Your task to perform on an android device: turn off location history Image 0: 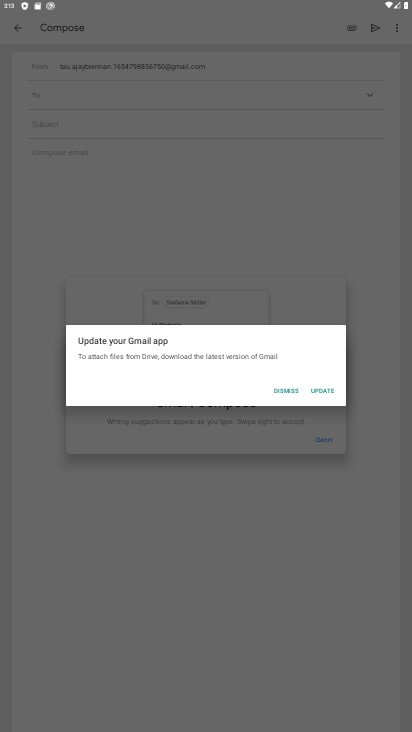
Step 0: press home button
Your task to perform on an android device: turn off location history Image 1: 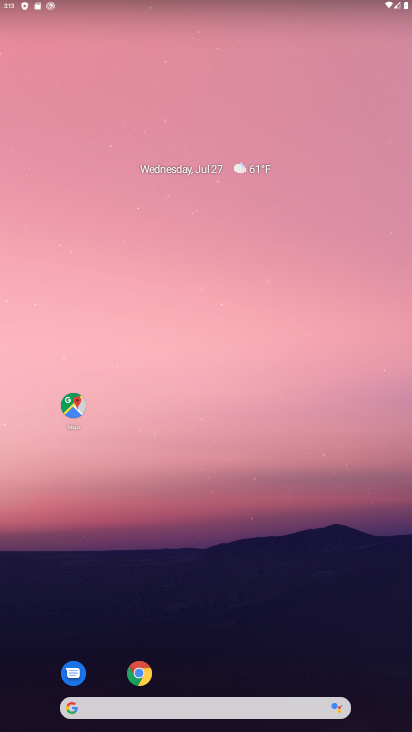
Step 1: drag from (355, 632) to (293, 200)
Your task to perform on an android device: turn off location history Image 2: 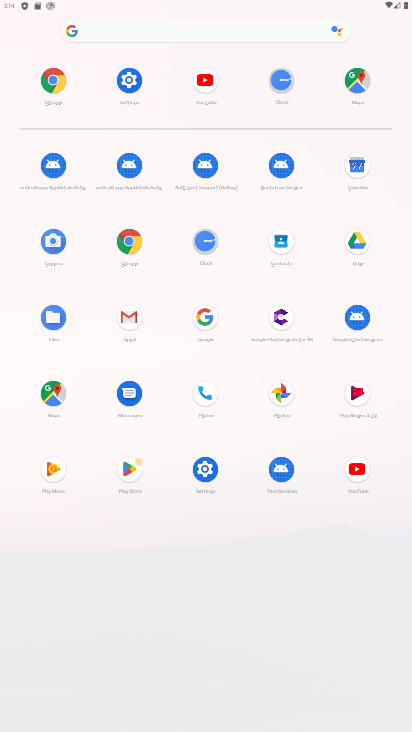
Step 2: click (199, 469)
Your task to perform on an android device: turn off location history Image 3: 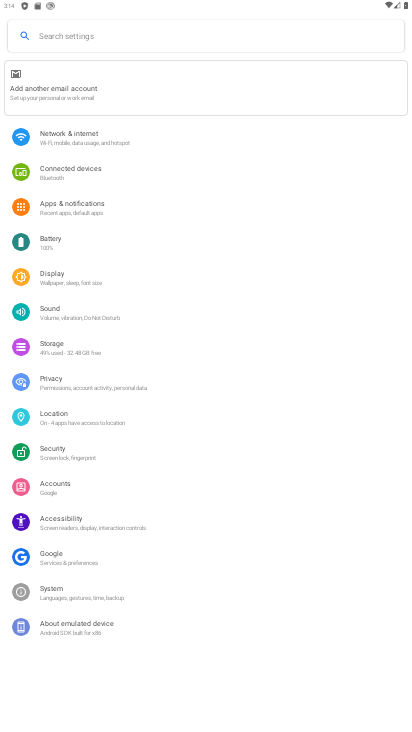
Step 3: click (70, 421)
Your task to perform on an android device: turn off location history Image 4: 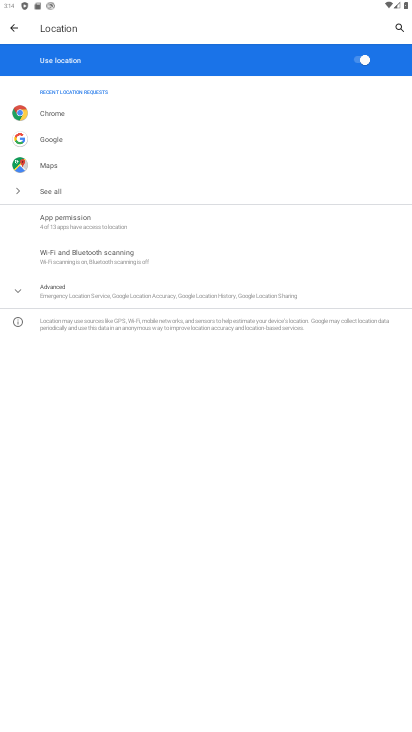
Step 4: click (55, 294)
Your task to perform on an android device: turn off location history Image 5: 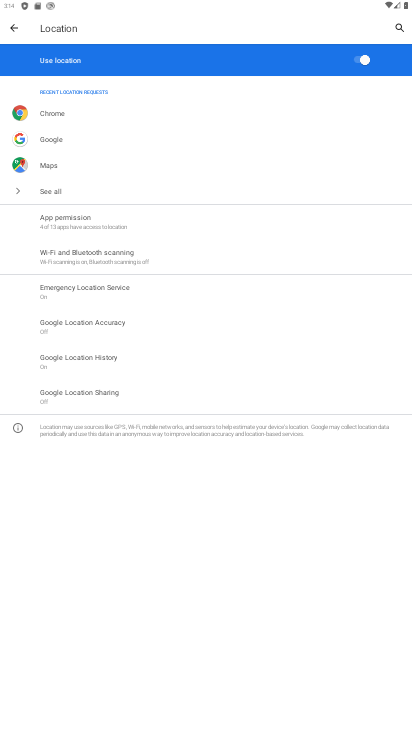
Step 5: click (120, 357)
Your task to perform on an android device: turn off location history Image 6: 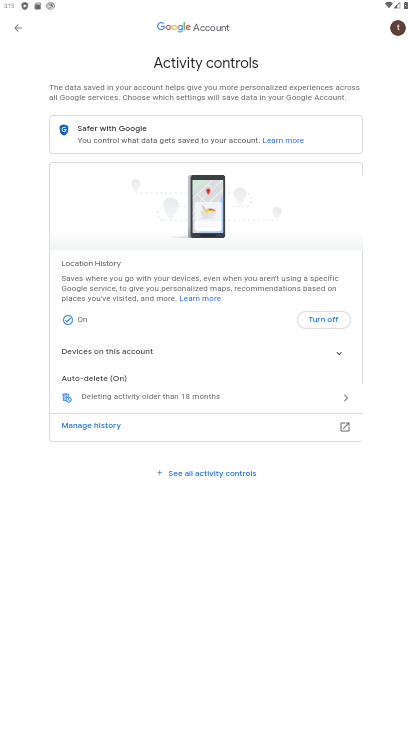
Step 6: click (316, 319)
Your task to perform on an android device: turn off location history Image 7: 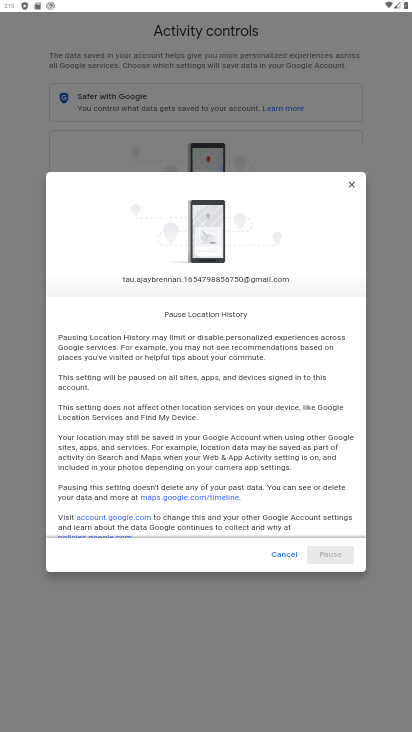
Step 7: drag from (321, 516) to (241, 312)
Your task to perform on an android device: turn off location history Image 8: 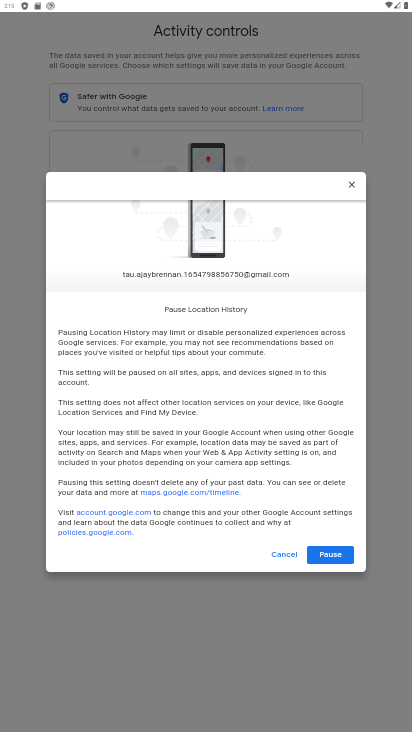
Step 8: click (340, 560)
Your task to perform on an android device: turn off location history Image 9: 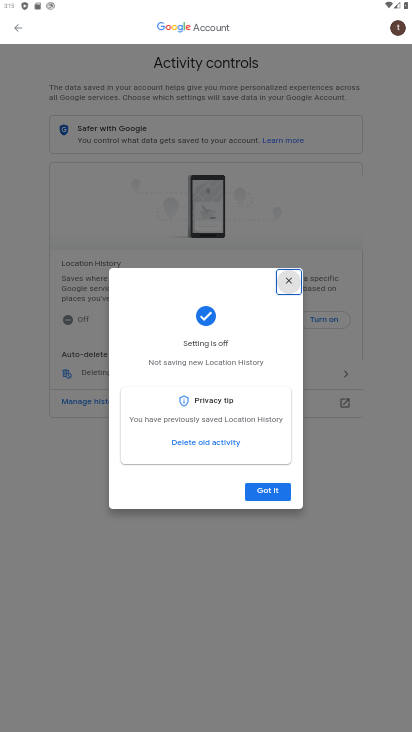
Step 9: click (271, 493)
Your task to perform on an android device: turn off location history Image 10: 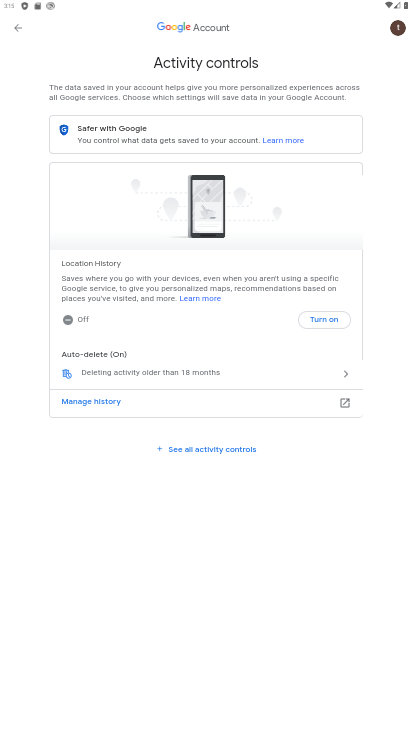
Step 10: task complete